Your task to perform on an android device: turn off data saver in the chrome app Image 0: 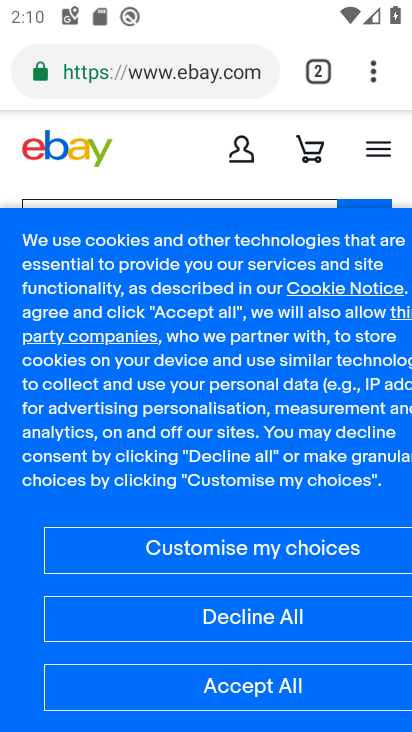
Step 0: press home button
Your task to perform on an android device: turn off data saver in the chrome app Image 1: 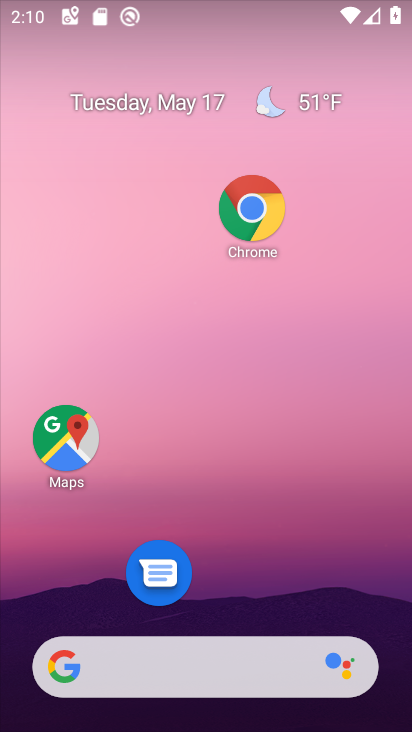
Step 1: drag from (256, 618) to (148, 61)
Your task to perform on an android device: turn off data saver in the chrome app Image 2: 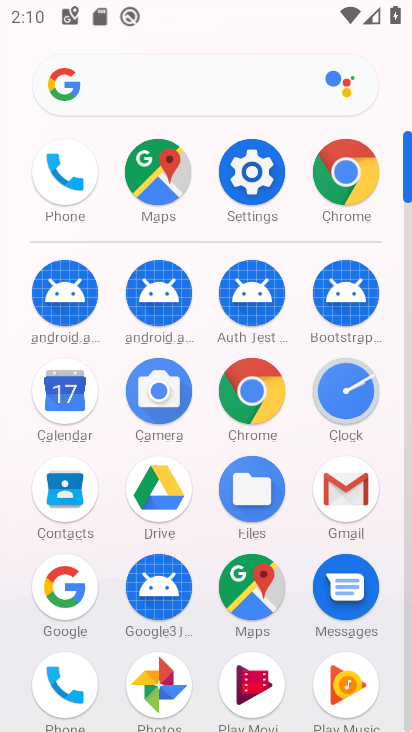
Step 2: click (255, 406)
Your task to perform on an android device: turn off data saver in the chrome app Image 3: 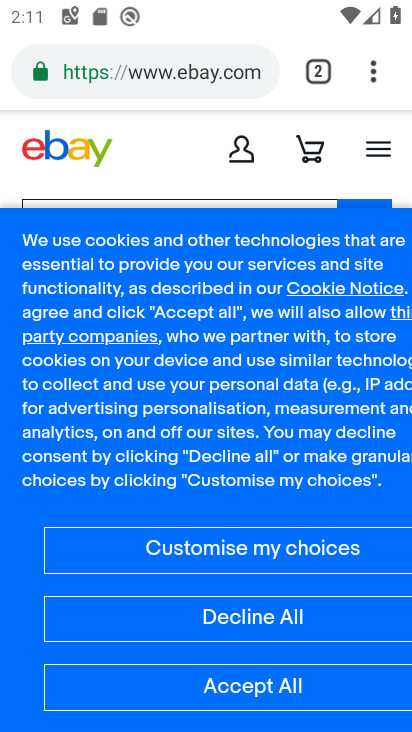
Step 3: click (364, 74)
Your task to perform on an android device: turn off data saver in the chrome app Image 4: 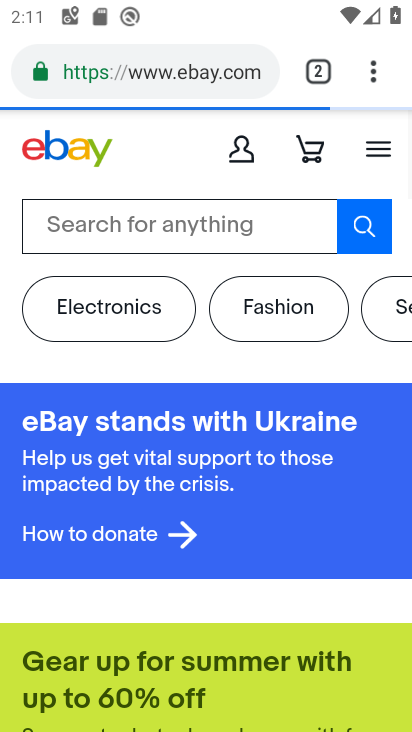
Step 4: drag from (372, 83) to (183, 574)
Your task to perform on an android device: turn off data saver in the chrome app Image 5: 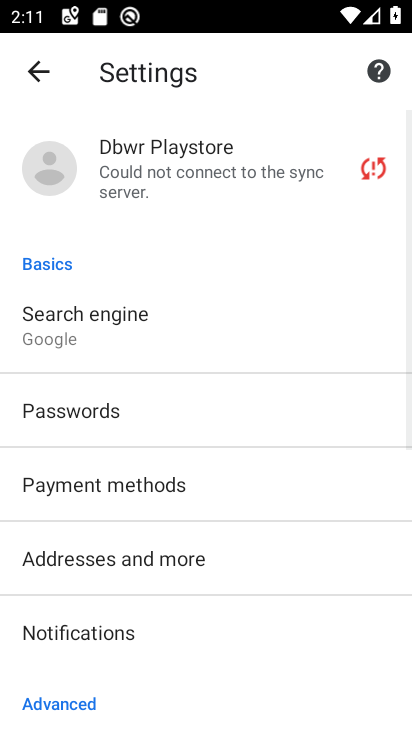
Step 5: drag from (189, 564) to (161, 99)
Your task to perform on an android device: turn off data saver in the chrome app Image 6: 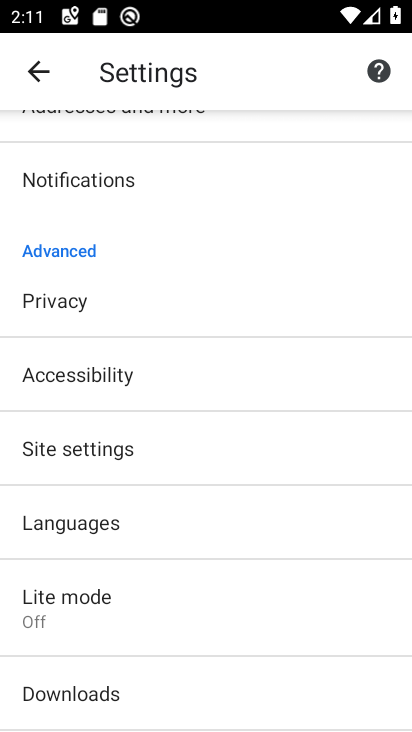
Step 6: click (98, 582)
Your task to perform on an android device: turn off data saver in the chrome app Image 7: 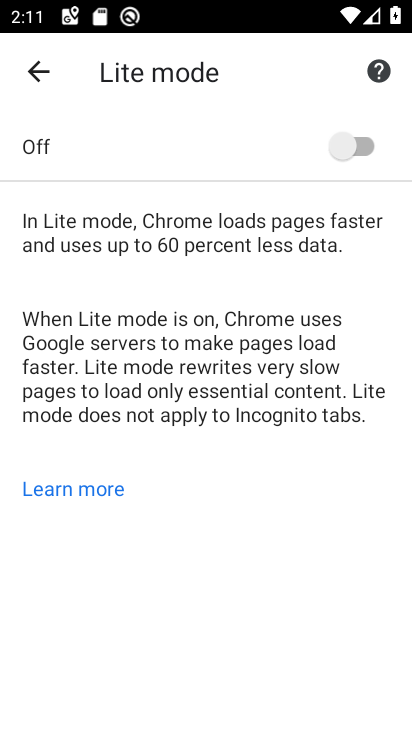
Step 7: task complete